Your task to perform on an android device: find photos in the google photos app Image 0: 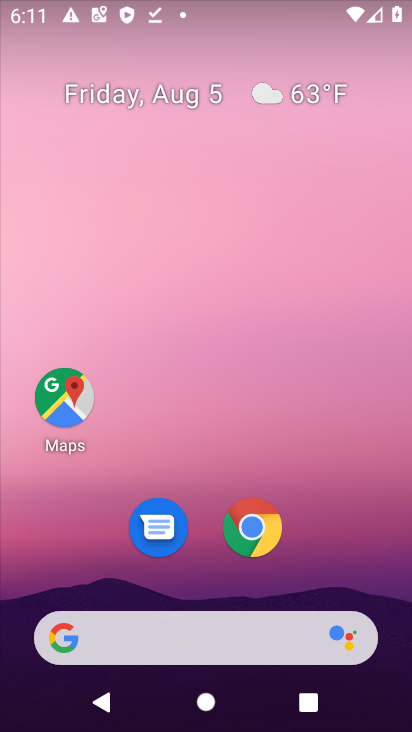
Step 0: drag from (217, 588) to (228, 248)
Your task to perform on an android device: find photos in the google photos app Image 1: 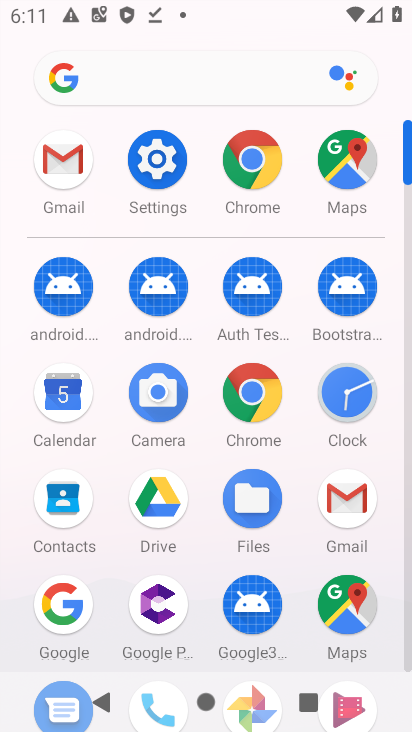
Step 1: drag from (207, 613) to (230, 116)
Your task to perform on an android device: find photos in the google photos app Image 2: 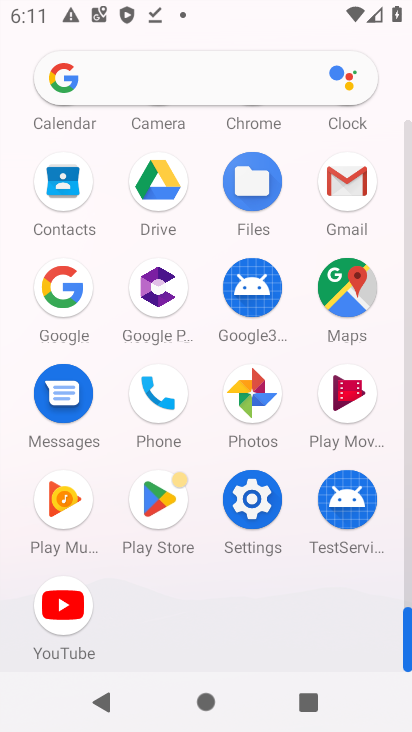
Step 2: drag from (200, 460) to (184, 216)
Your task to perform on an android device: find photos in the google photos app Image 3: 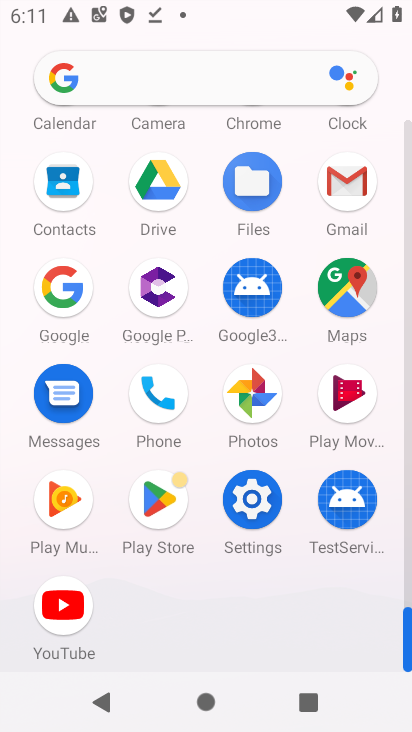
Step 3: click (239, 392)
Your task to perform on an android device: find photos in the google photos app Image 4: 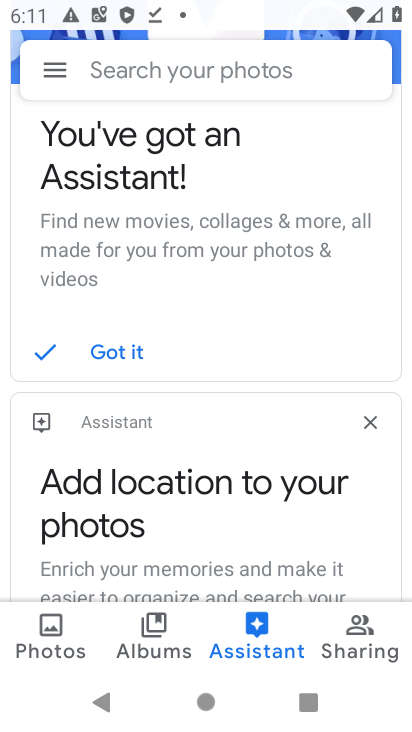
Step 4: drag from (178, 529) to (227, 214)
Your task to perform on an android device: find photos in the google photos app Image 5: 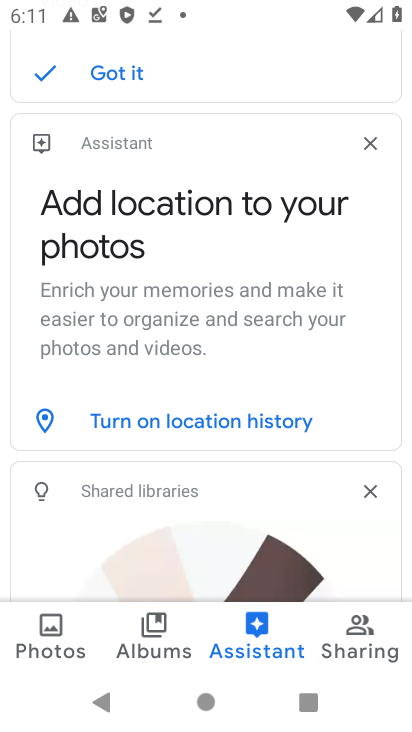
Step 5: click (66, 615)
Your task to perform on an android device: find photos in the google photos app Image 6: 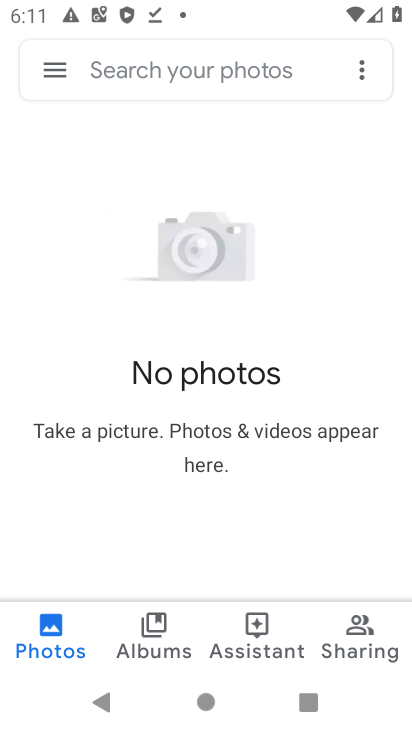
Step 6: task complete